Your task to perform on an android device: Go to Amazon Image 0: 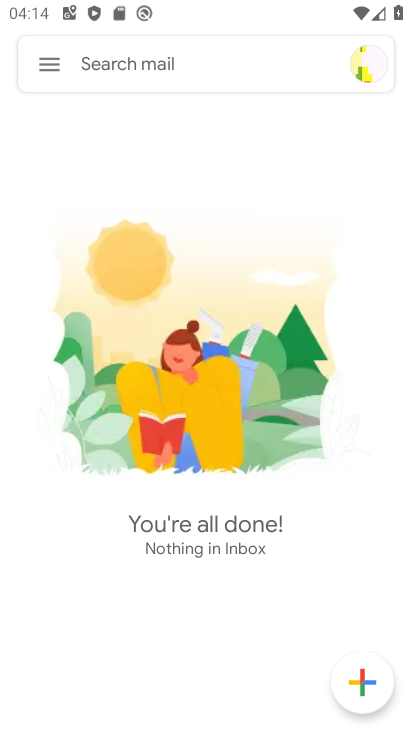
Step 0: press home button
Your task to perform on an android device: Go to Amazon Image 1: 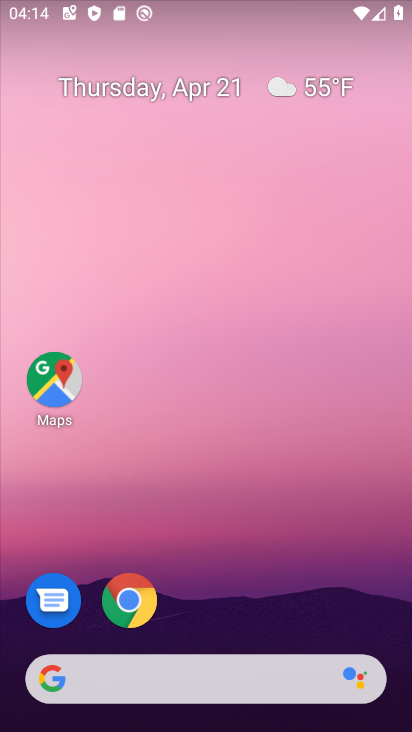
Step 1: click (135, 609)
Your task to perform on an android device: Go to Amazon Image 2: 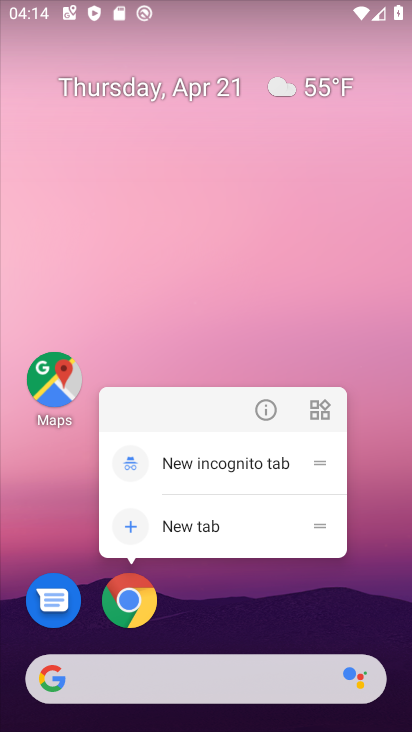
Step 2: click (147, 619)
Your task to perform on an android device: Go to Amazon Image 3: 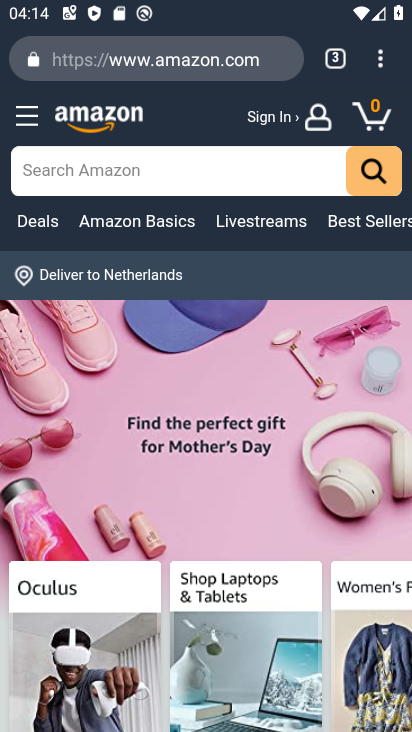
Step 3: task complete